Your task to perform on an android device: search for starred emails in the gmail app Image 0: 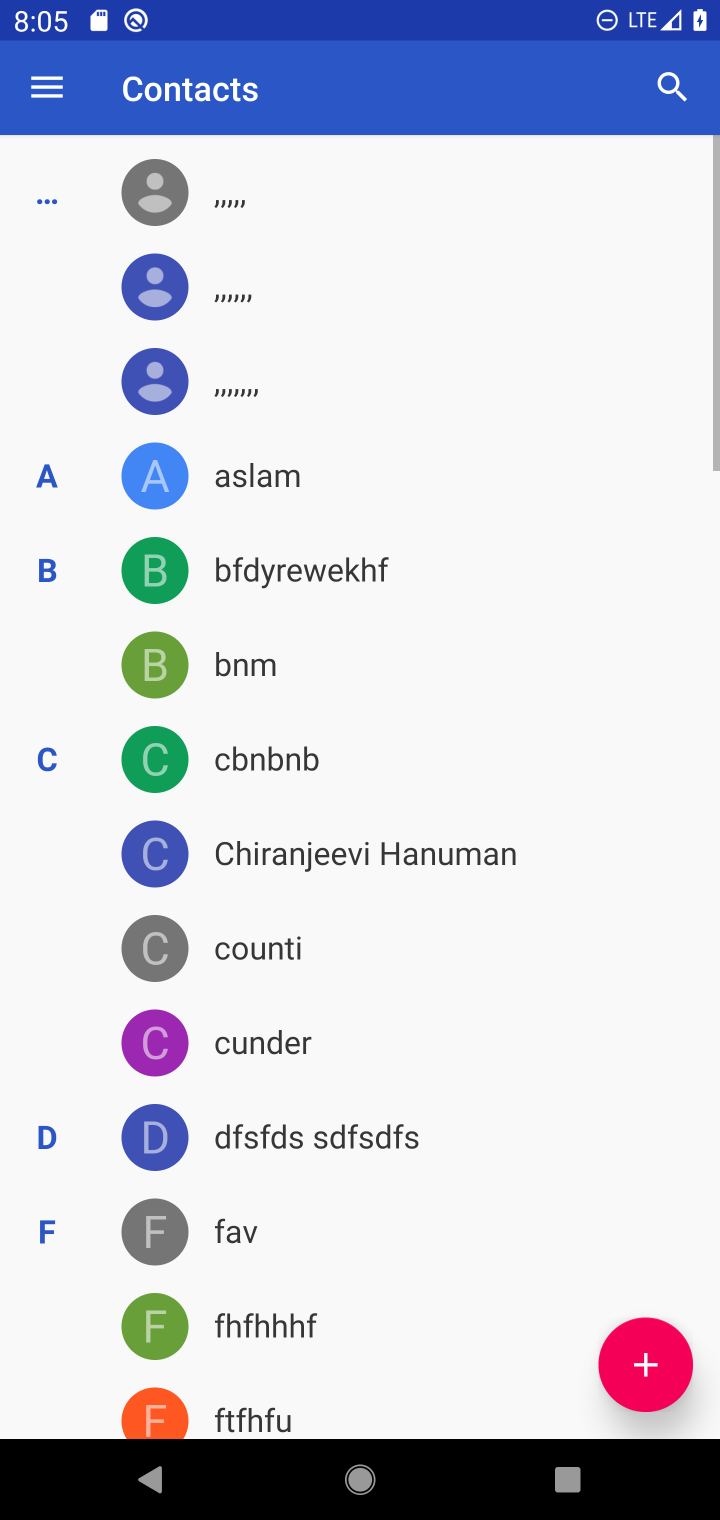
Step 0: press home button
Your task to perform on an android device: search for starred emails in the gmail app Image 1: 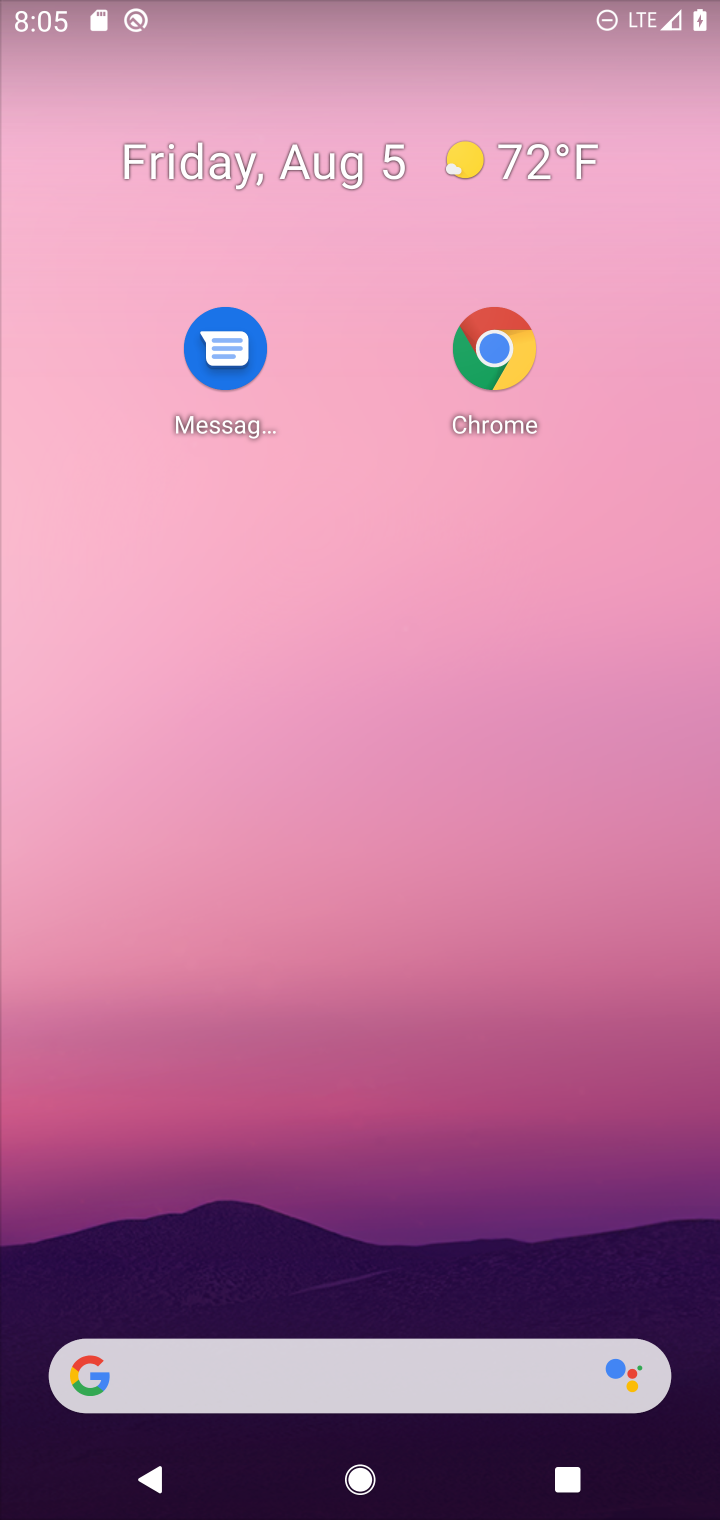
Step 1: drag from (408, 1349) to (305, 414)
Your task to perform on an android device: search for starred emails in the gmail app Image 2: 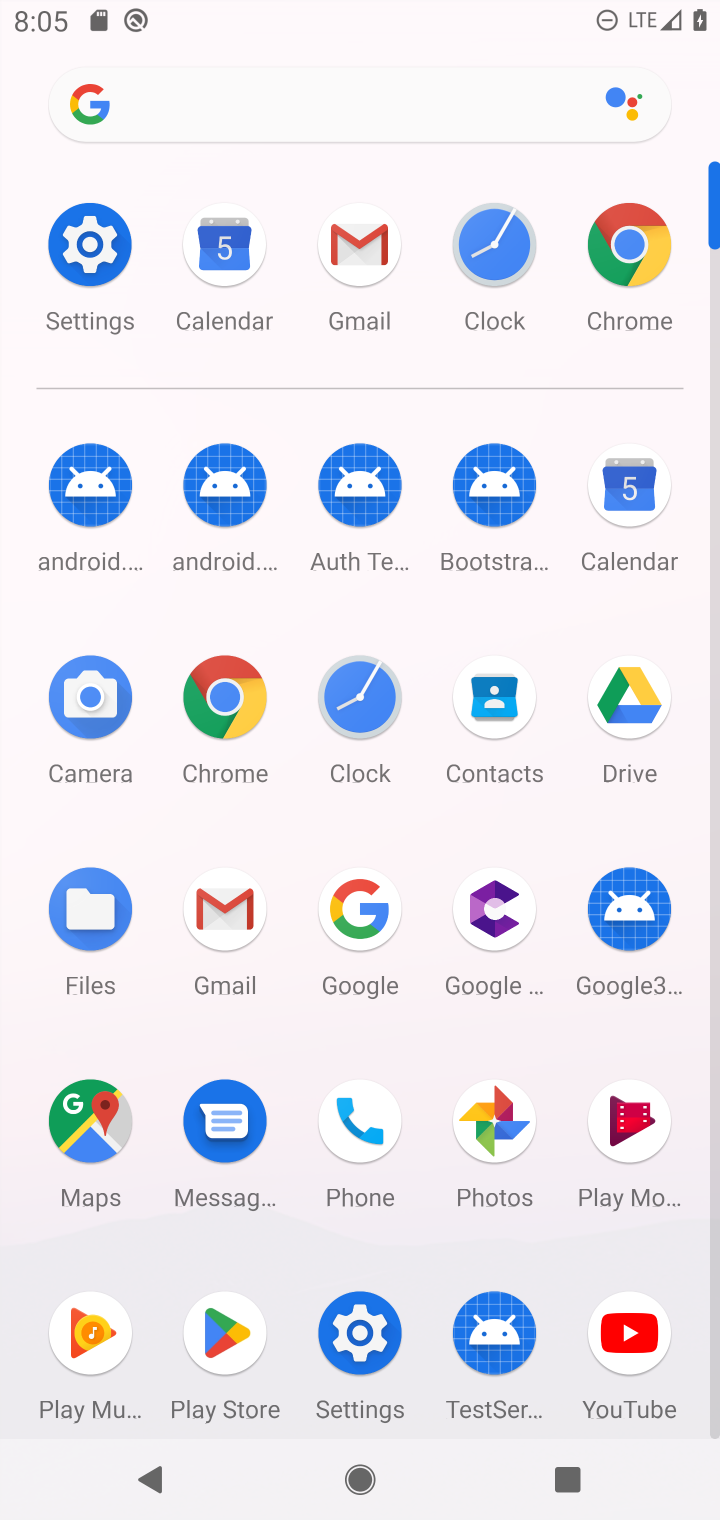
Step 2: click (359, 257)
Your task to perform on an android device: search for starred emails in the gmail app Image 3: 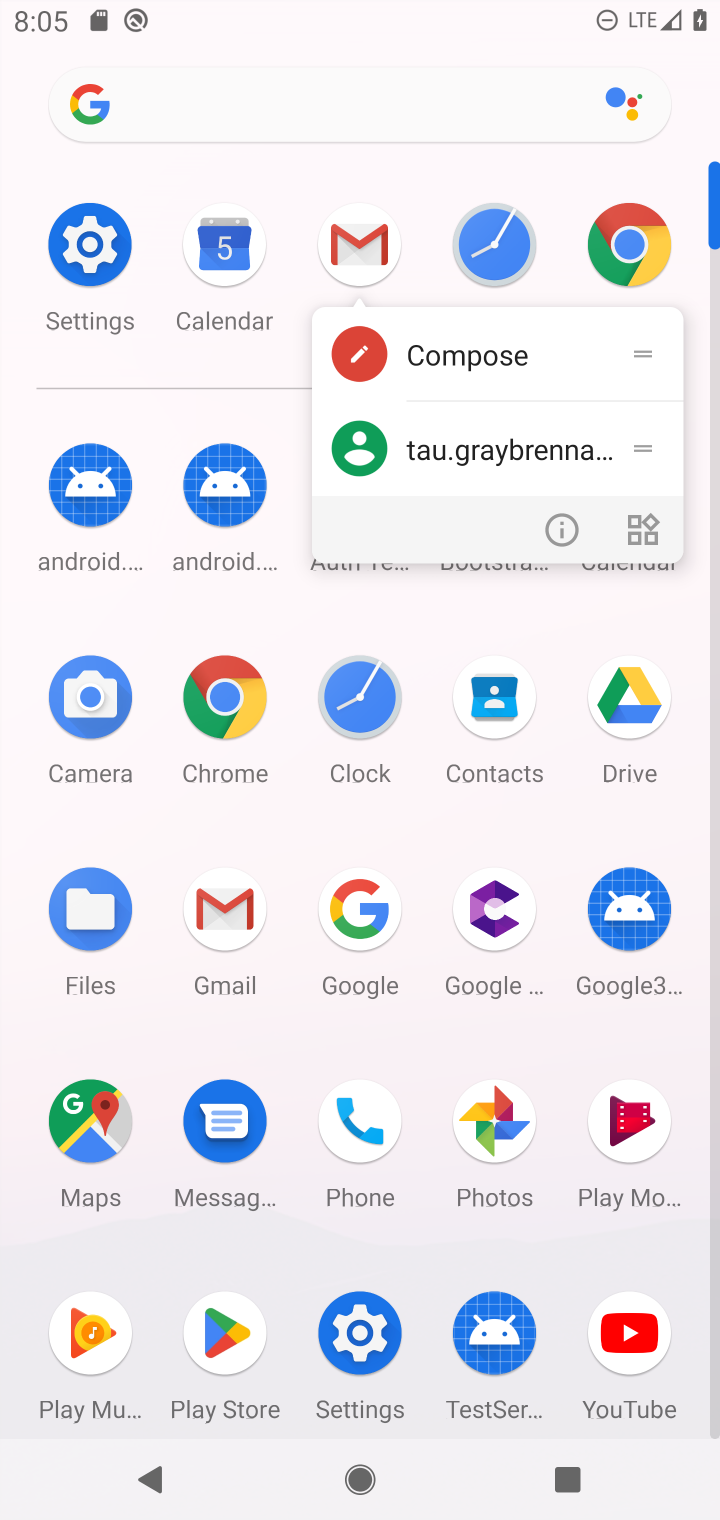
Step 3: click (343, 253)
Your task to perform on an android device: search for starred emails in the gmail app Image 4: 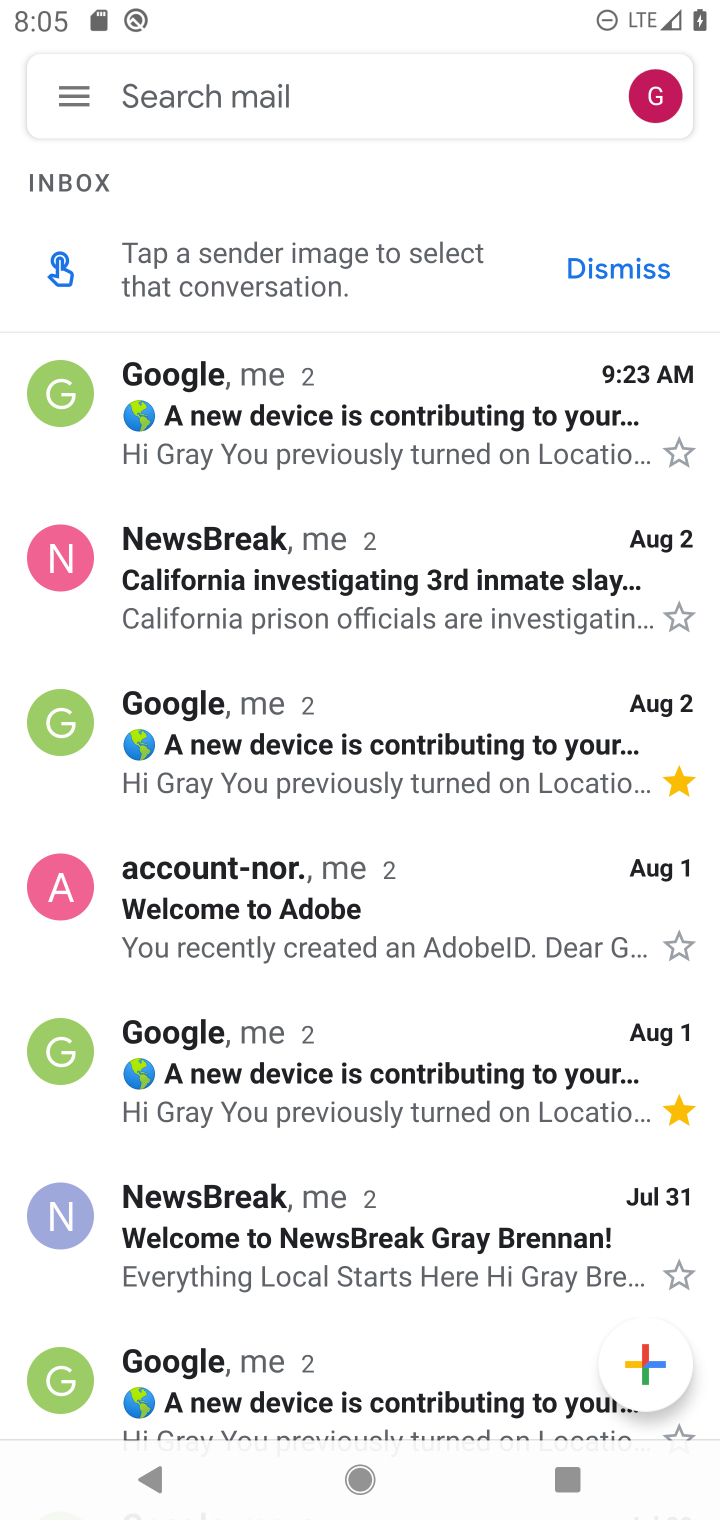
Step 4: click (85, 91)
Your task to perform on an android device: search for starred emails in the gmail app Image 5: 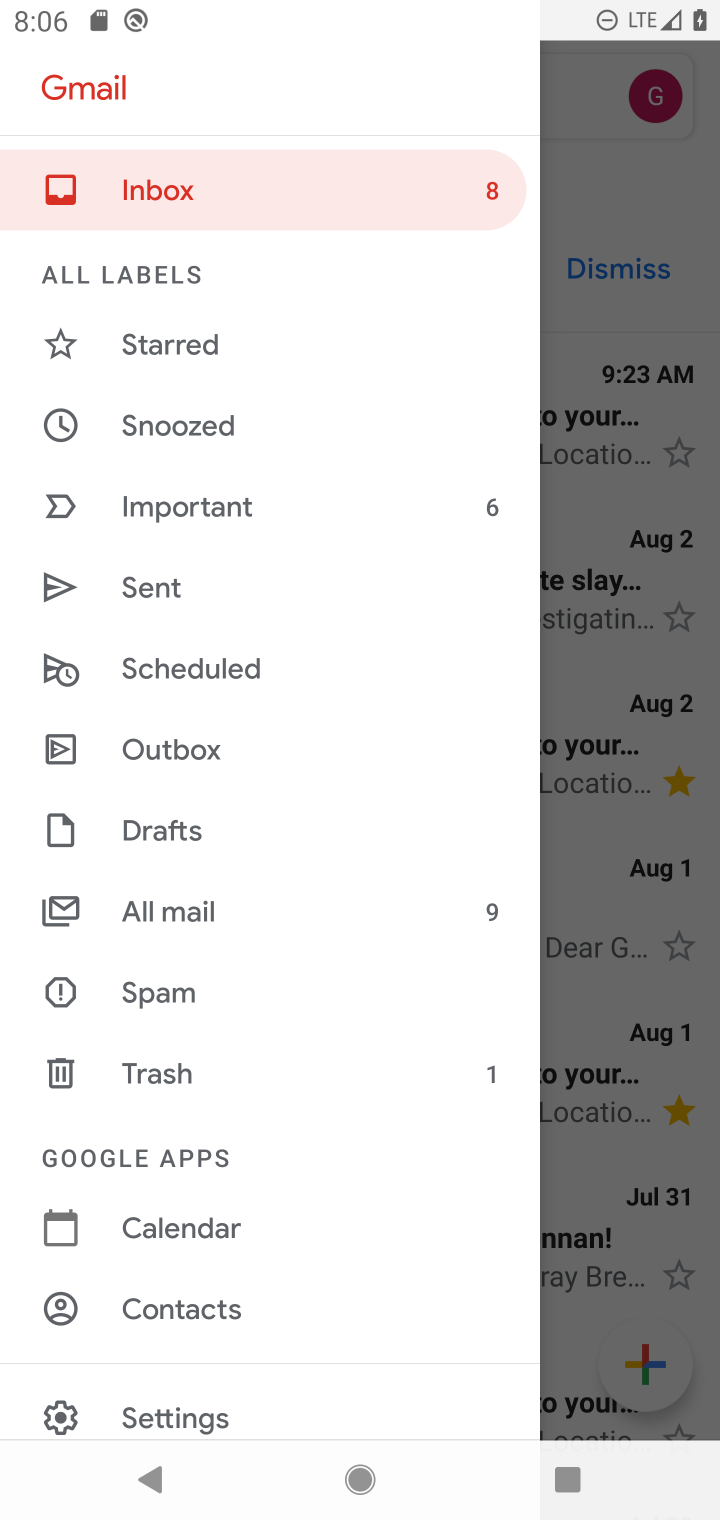
Step 5: click (185, 365)
Your task to perform on an android device: search for starred emails in the gmail app Image 6: 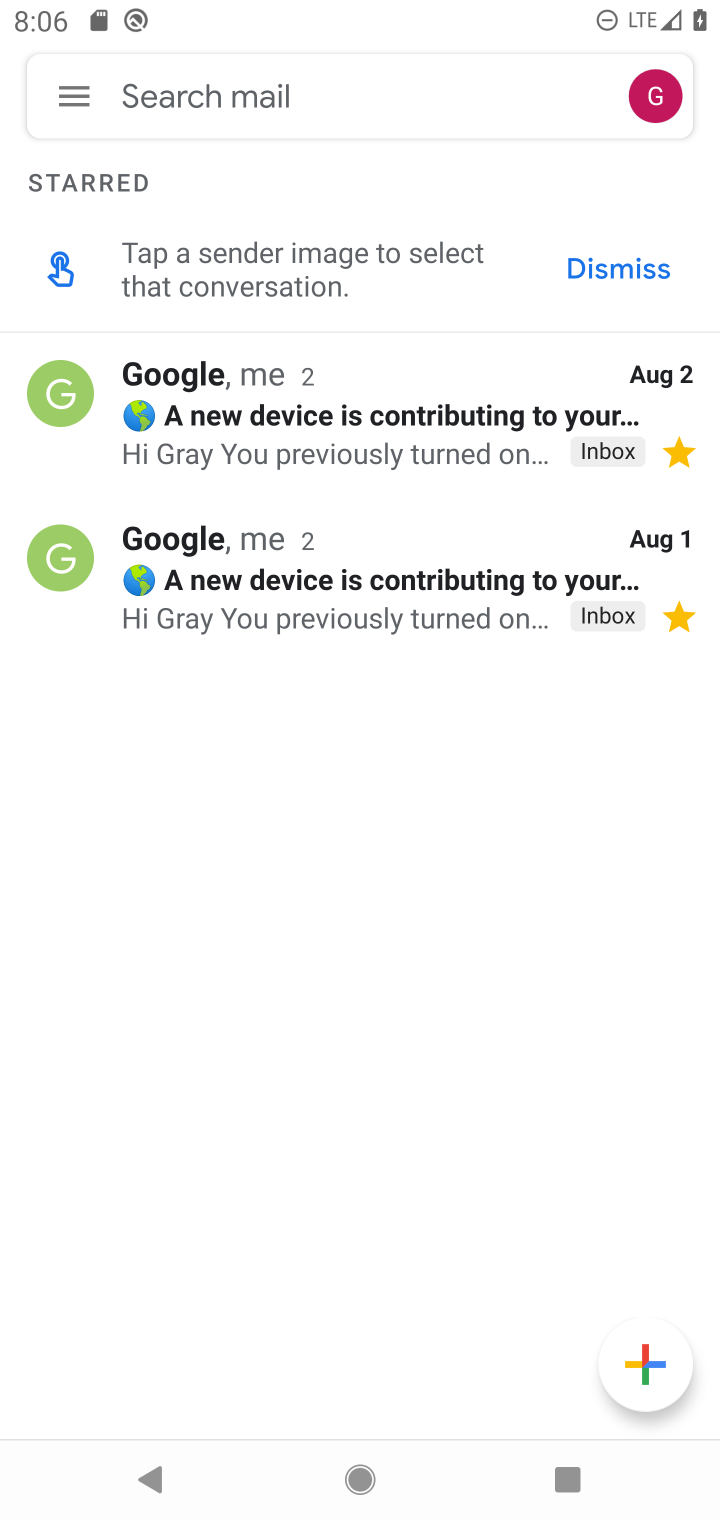
Step 6: click (588, 267)
Your task to perform on an android device: search for starred emails in the gmail app Image 7: 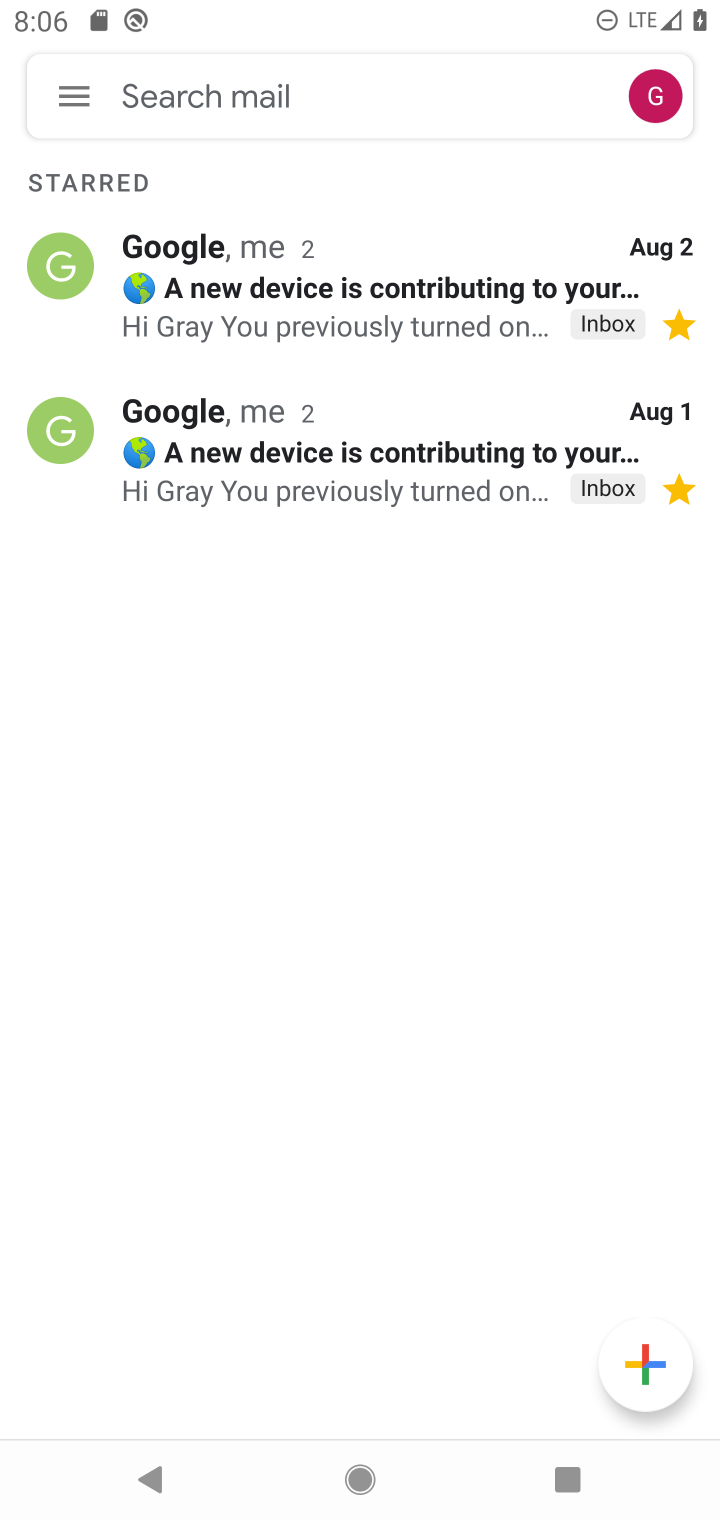
Step 7: click (61, 95)
Your task to perform on an android device: search for starred emails in the gmail app Image 8: 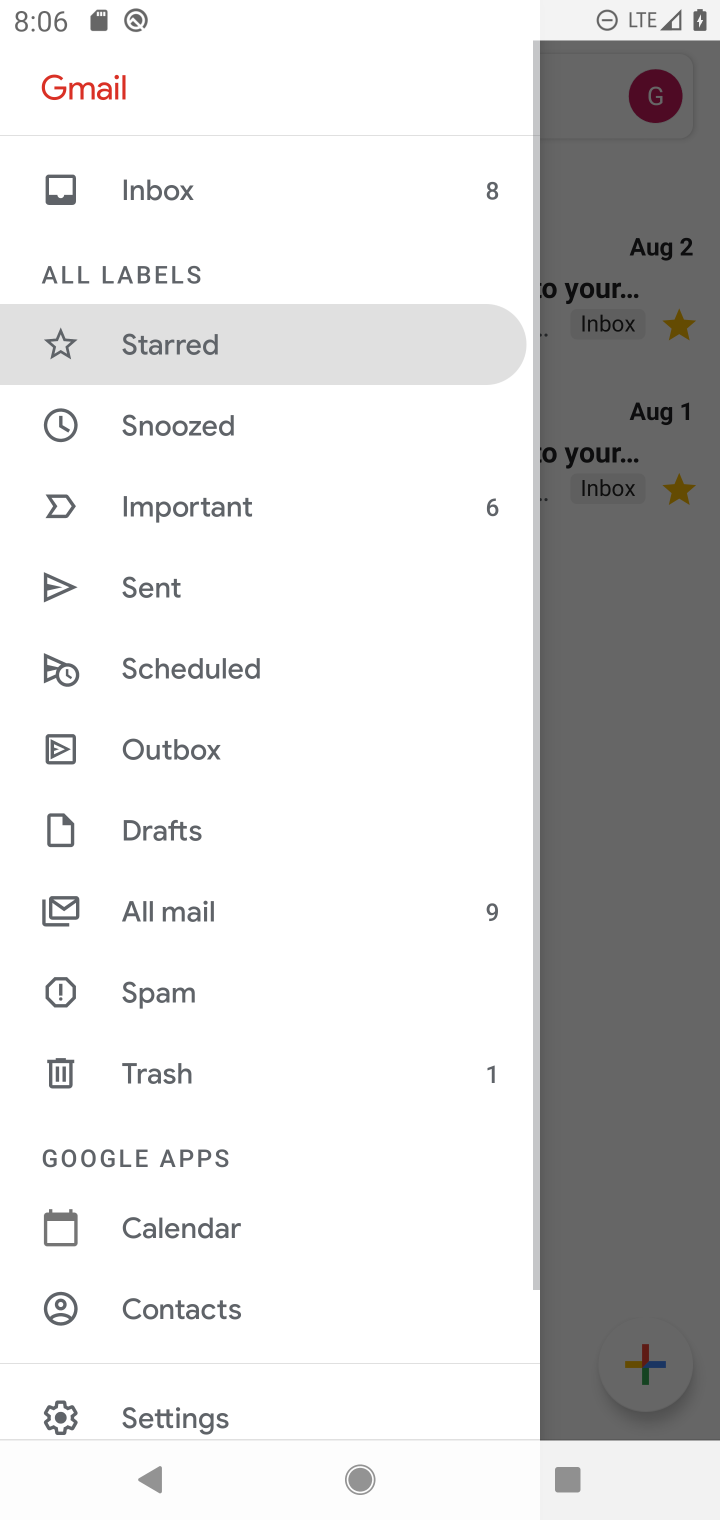
Step 8: click (258, 344)
Your task to perform on an android device: search for starred emails in the gmail app Image 9: 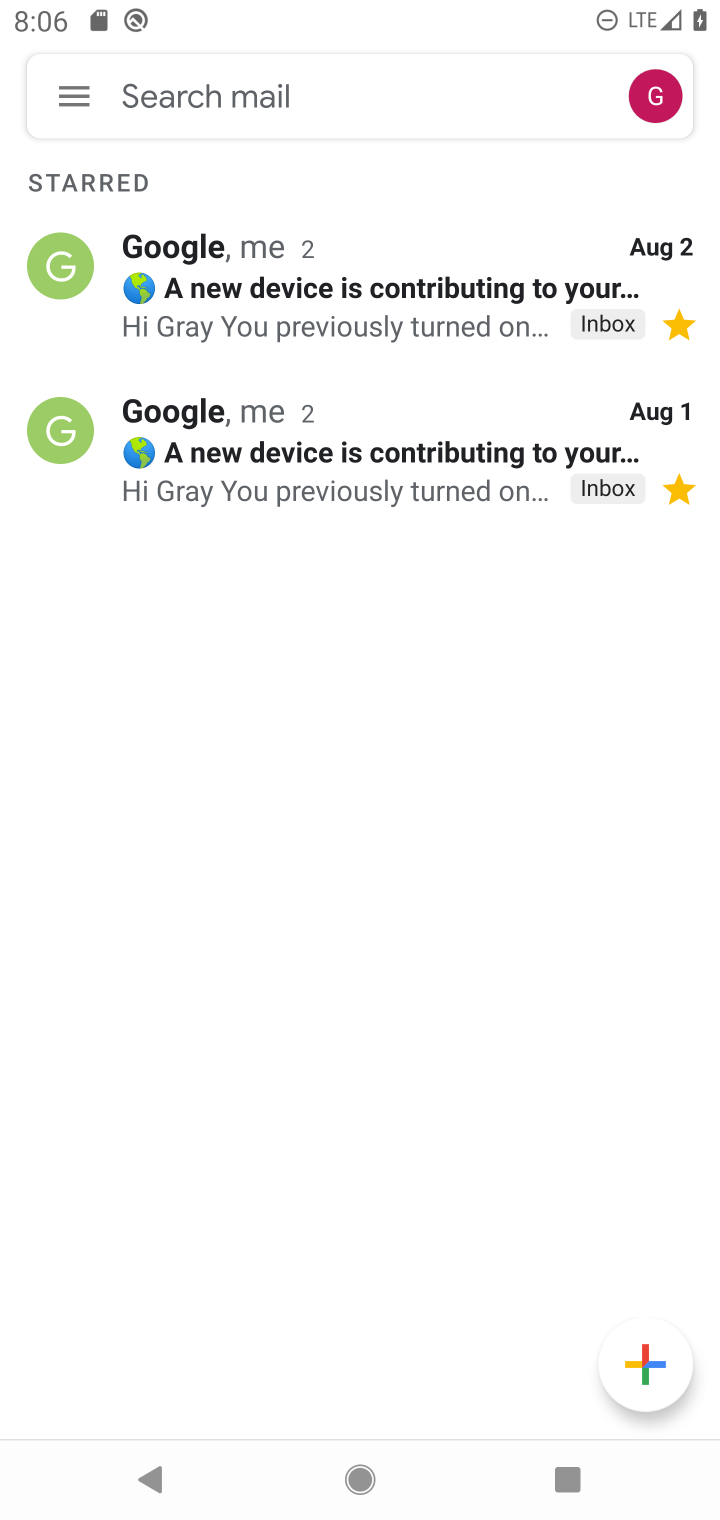
Step 9: task complete